Your task to perform on an android device: change the clock display to analog Image 0: 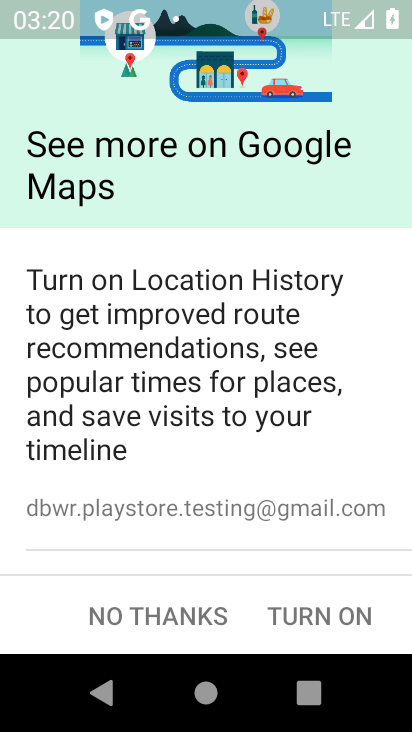
Step 0: click (159, 625)
Your task to perform on an android device: change the clock display to analog Image 1: 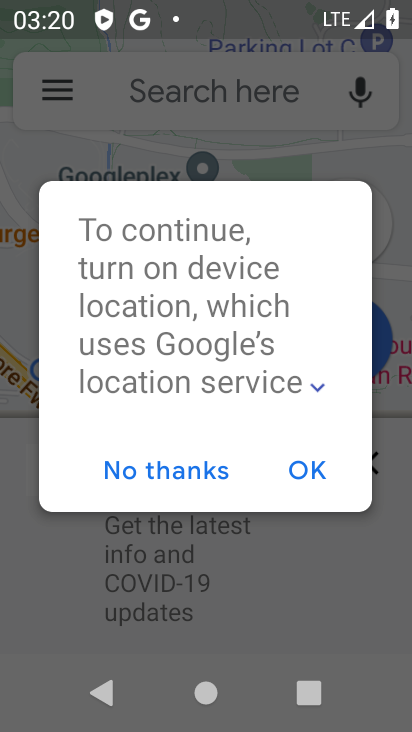
Step 1: press home button
Your task to perform on an android device: change the clock display to analog Image 2: 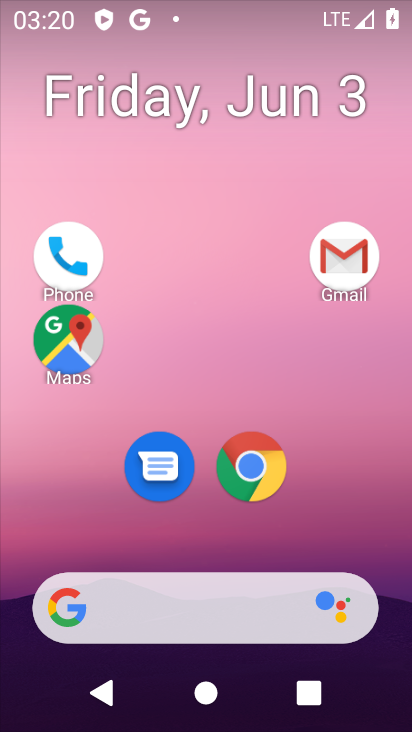
Step 2: drag from (225, 364) to (218, 116)
Your task to perform on an android device: change the clock display to analog Image 3: 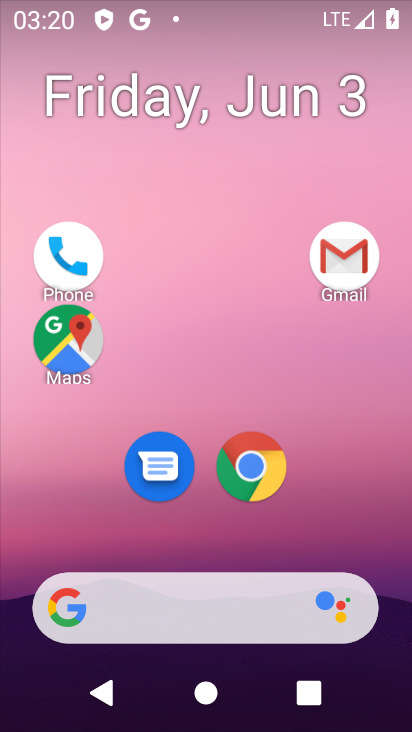
Step 3: drag from (200, 530) to (218, 189)
Your task to perform on an android device: change the clock display to analog Image 4: 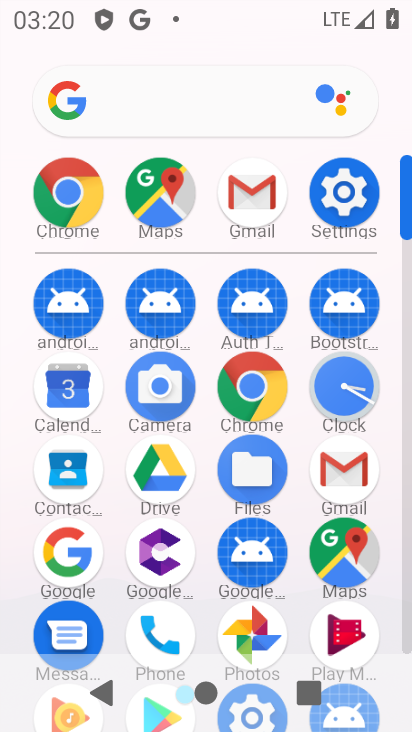
Step 4: click (347, 254)
Your task to perform on an android device: change the clock display to analog Image 5: 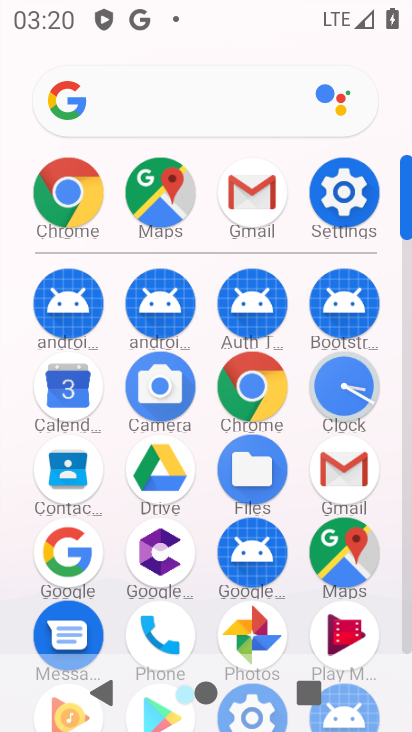
Step 5: click (338, 216)
Your task to perform on an android device: change the clock display to analog Image 6: 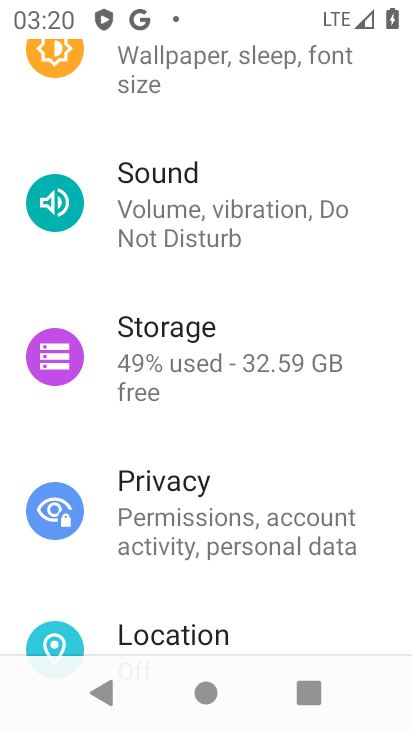
Step 6: drag from (264, 193) to (246, 524)
Your task to perform on an android device: change the clock display to analog Image 7: 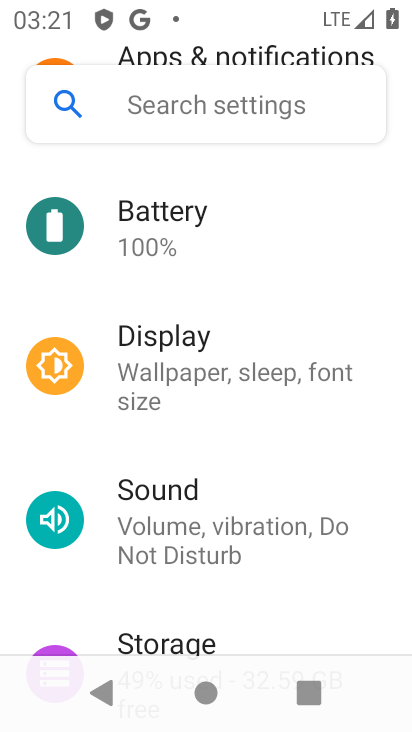
Step 7: drag from (244, 335) to (227, 606)
Your task to perform on an android device: change the clock display to analog Image 8: 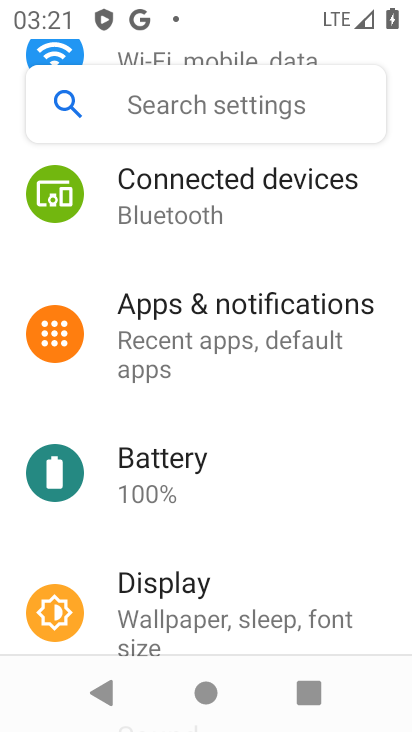
Step 8: drag from (277, 404) to (239, 645)
Your task to perform on an android device: change the clock display to analog Image 9: 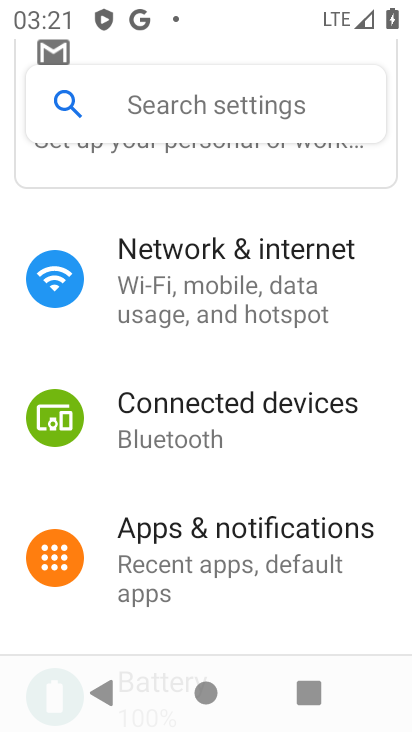
Step 9: press back button
Your task to perform on an android device: change the clock display to analog Image 10: 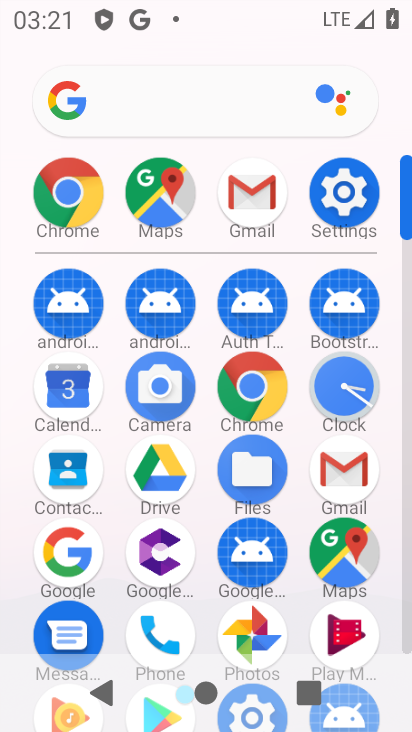
Step 10: click (340, 211)
Your task to perform on an android device: change the clock display to analog Image 11: 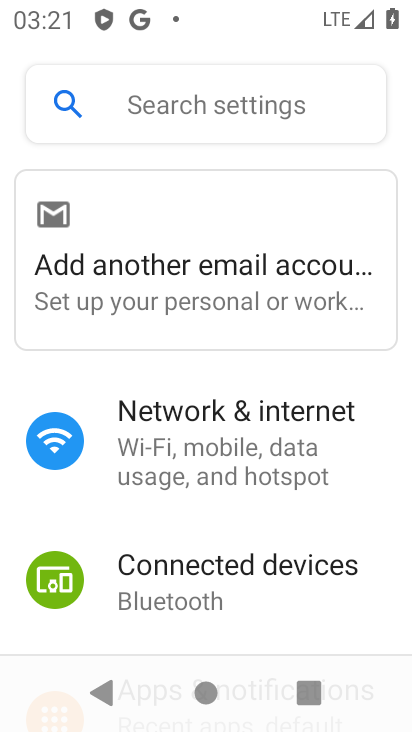
Step 11: press back button
Your task to perform on an android device: change the clock display to analog Image 12: 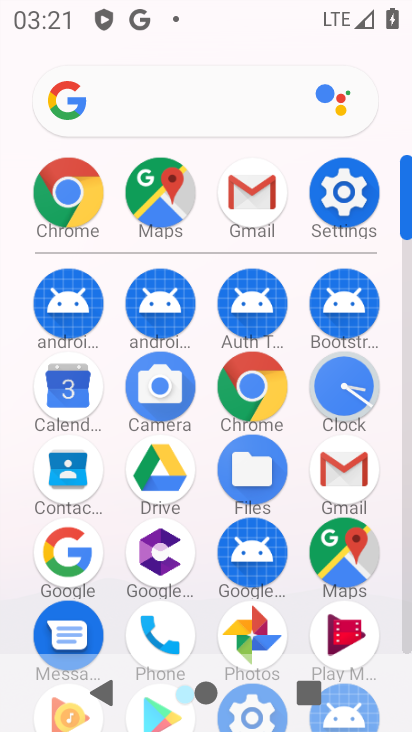
Step 12: click (338, 403)
Your task to perform on an android device: change the clock display to analog Image 13: 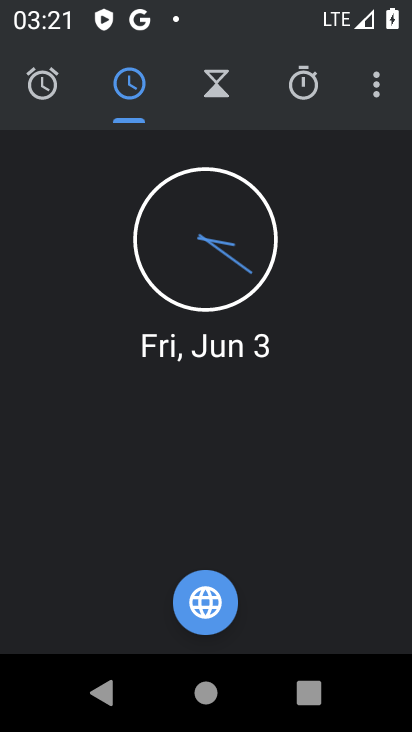
Step 13: click (372, 99)
Your task to perform on an android device: change the clock display to analog Image 14: 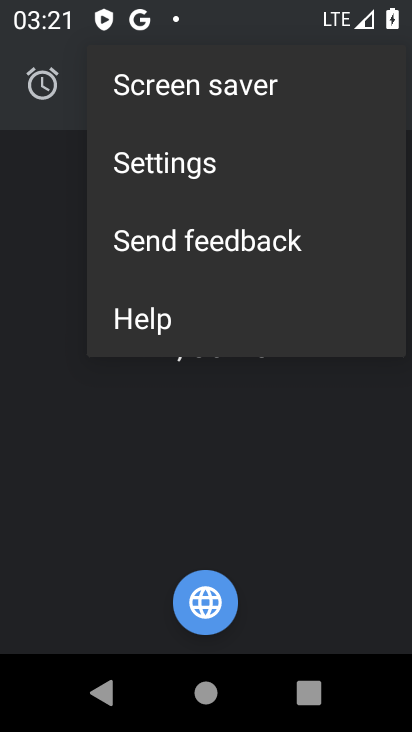
Step 14: click (122, 172)
Your task to perform on an android device: change the clock display to analog Image 15: 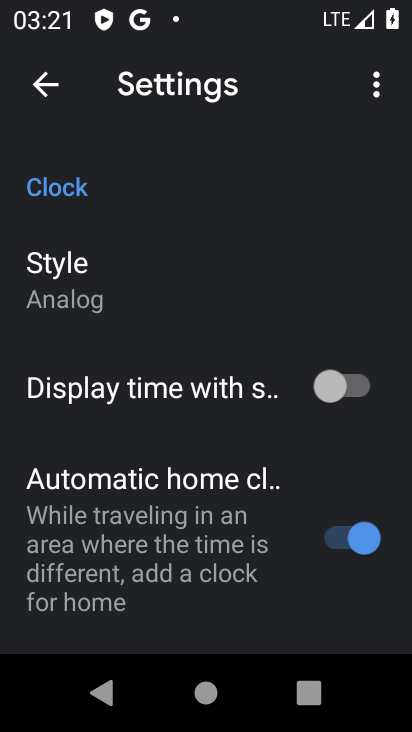
Step 15: task complete